Your task to perform on an android device: toggle translation in the chrome app Image 0: 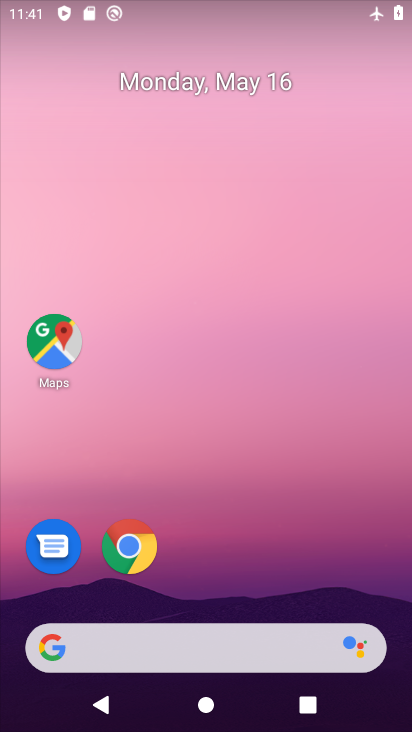
Step 0: click (128, 553)
Your task to perform on an android device: toggle translation in the chrome app Image 1: 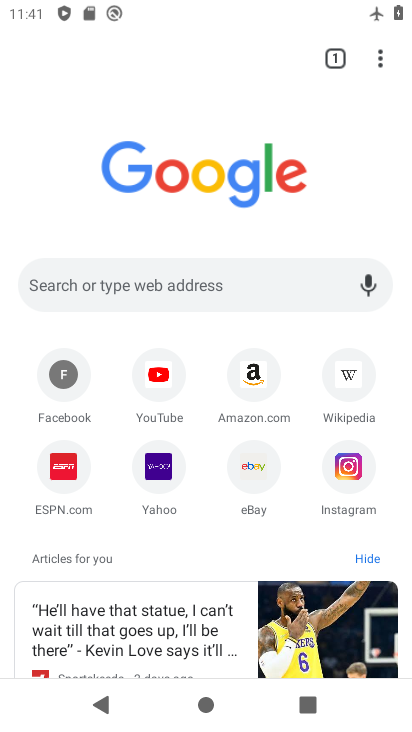
Step 1: click (376, 59)
Your task to perform on an android device: toggle translation in the chrome app Image 2: 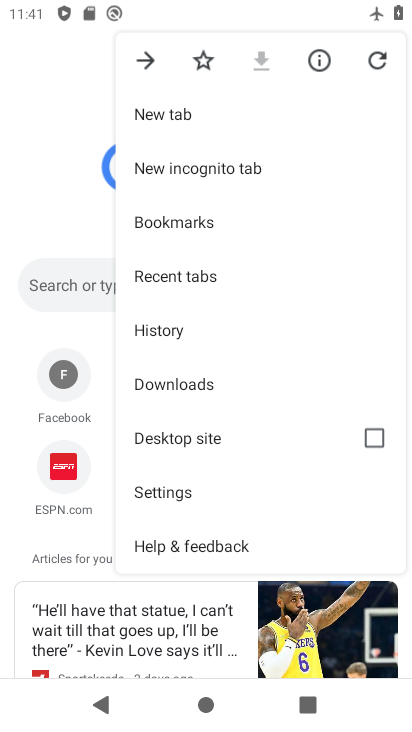
Step 2: click (169, 487)
Your task to perform on an android device: toggle translation in the chrome app Image 3: 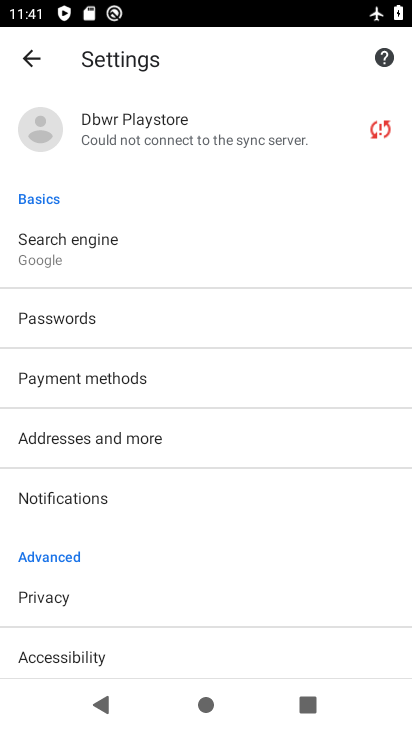
Step 3: drag from (217, 609) to (243, 206)
Your task to perform on an android device: toggle translation in the chrome app Image 4: 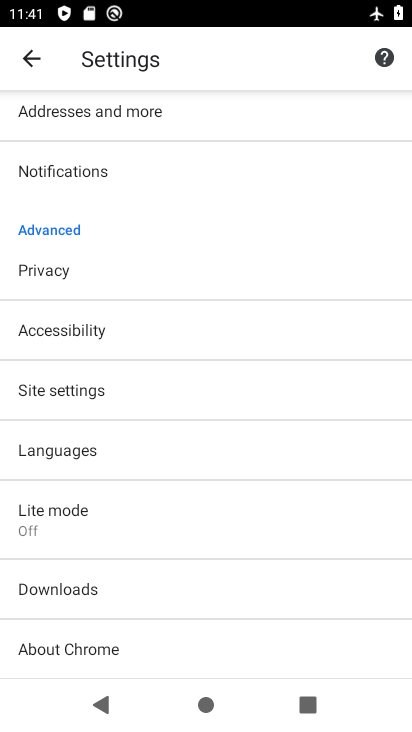
Step 4: click (36, 450)
Your task to perform on an android device: toggle translation in the chrome app Image 5: 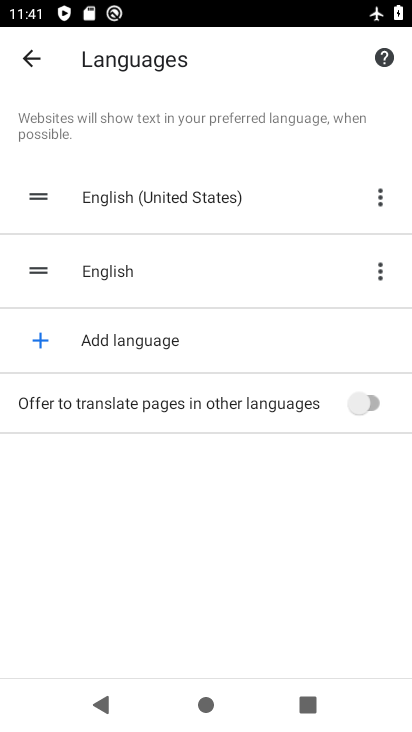
Step 5: click (373, 403)
Your task to perform on an android device: toggle translation in the chrome app Image 6: 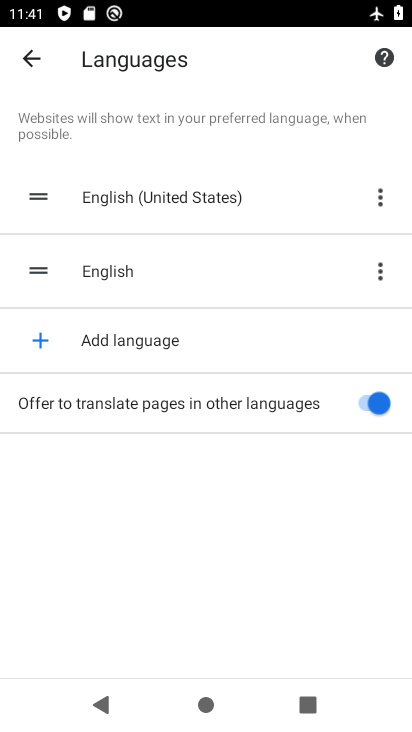
Step 6: task complete